Your task to perform on an android device: turn on data saver in the chrome app Image 0: 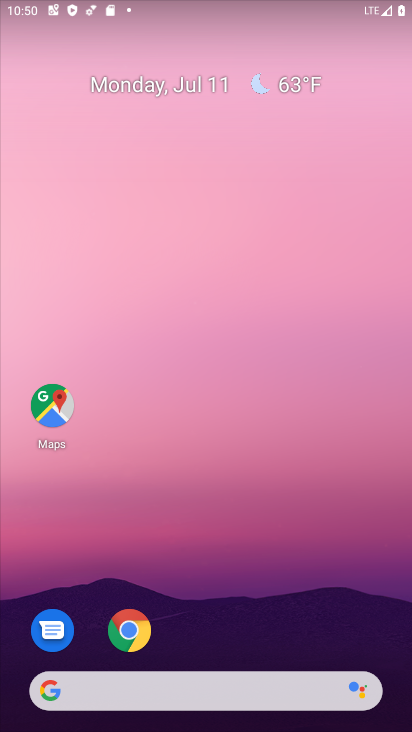
Step 0: click (129, 632)
Your task to perform on an android device: turn on data saver in the chrome app Image 1: 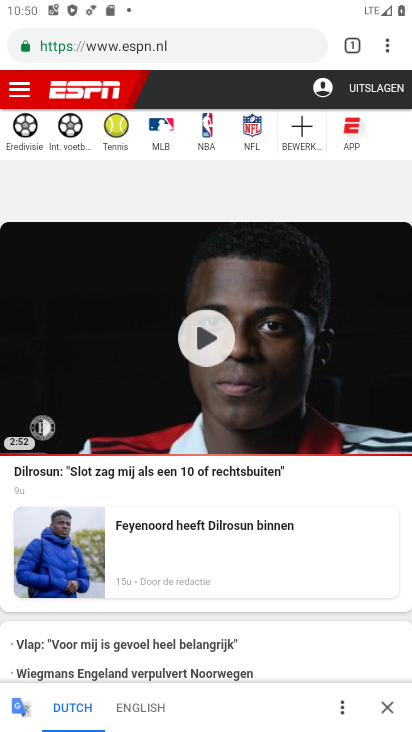
Step 1: click (387, 46)
Your task to perform on an android device: turn on data saver in the chrome app Image 2: 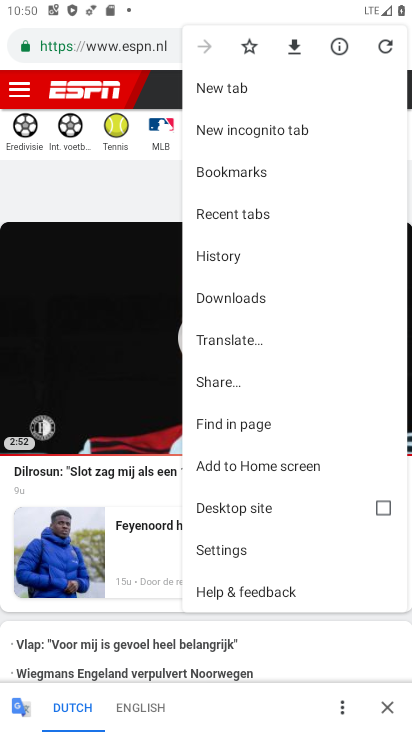
Step 2: click (230, 556)
Your task to perform on an android device: turn on data saver in the chrome app Image 3: 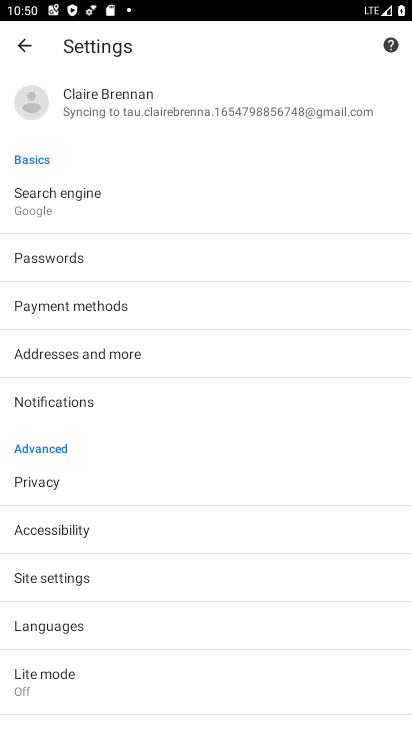
Step 3: click (43, 685)
Your task to perform on an android device: turn on data saver in the chrome app Image 4: 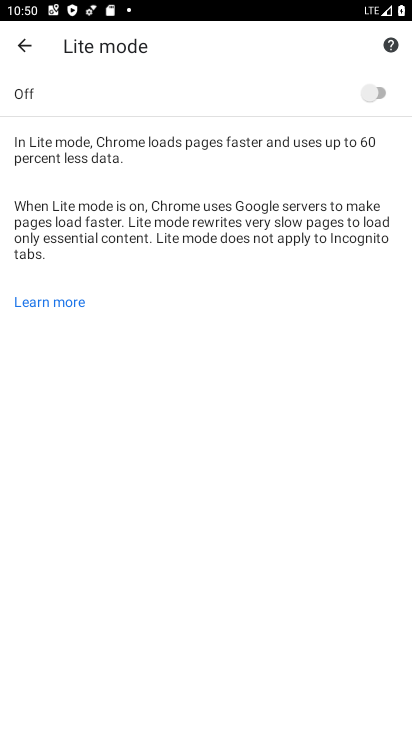
Step 4: click (382, 90)
Your task to perform on an android device: turn on data saver in the chrome app Image 5: 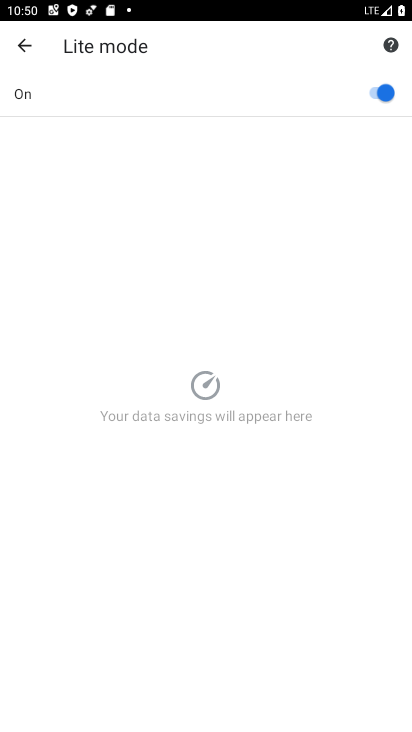
Step 5: task complete